Your task to perform on an android device: Set the phone to "Do not disturb". Image 0: 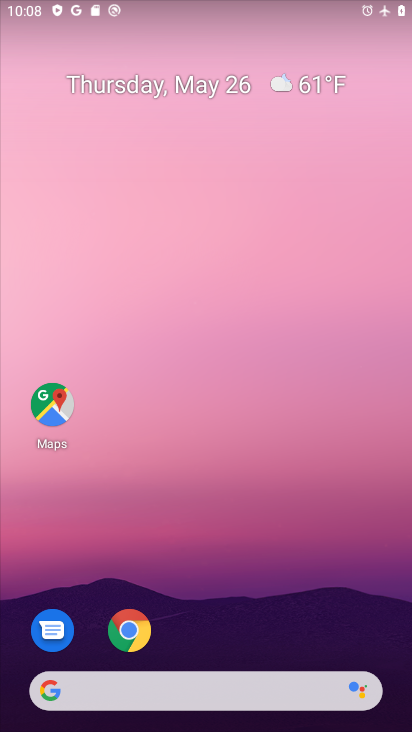
Step 0: drag from (353, 8) to (342, 307)
Your task to perform on an android device: Set the phone to "Do not disturb". Image 1: 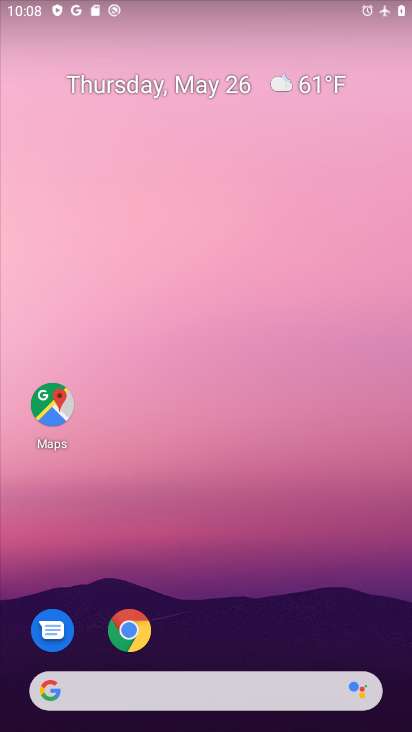
Step 1: drag from (170, 6) to (138, 392)
Your task to perform on an android device: Set the phone to "Do not disturb". Image 2: 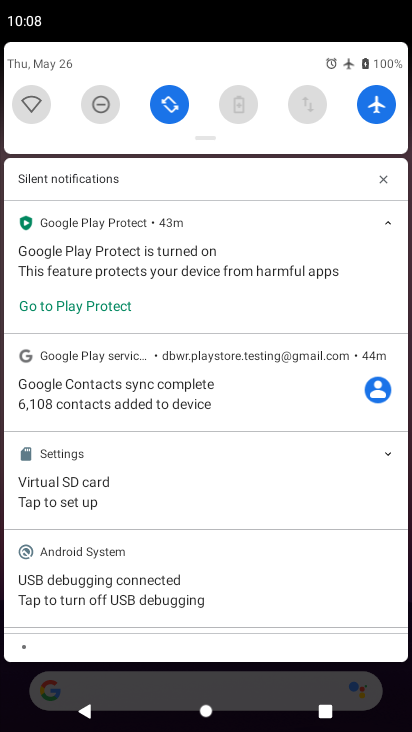
Step 2: click (92, 113)
Your task to perform on an android device: Set the phone to "Do not disturb". Image 3: 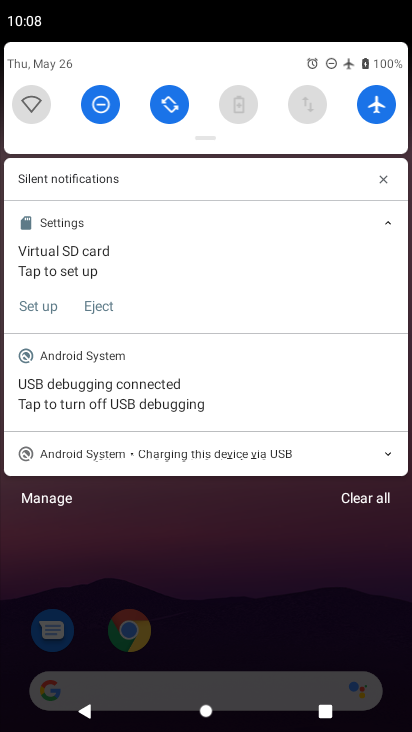
Step 3: task complete